Your task to perform on an android device: star an email in the gmail app Image 0: 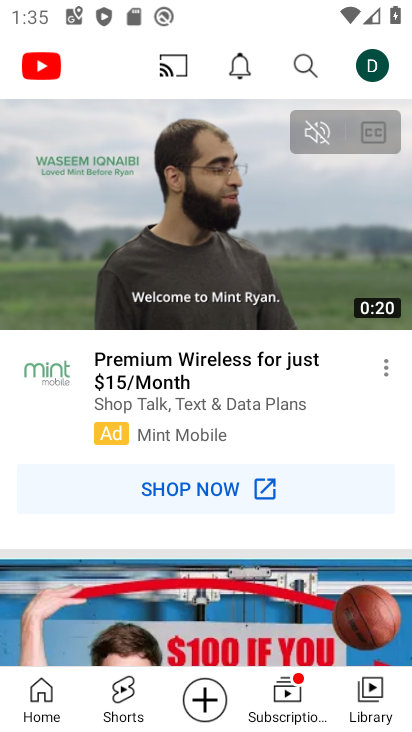
Step 0: press home button
Your task to perform on an android device: star an email in the gmail app Image 1: 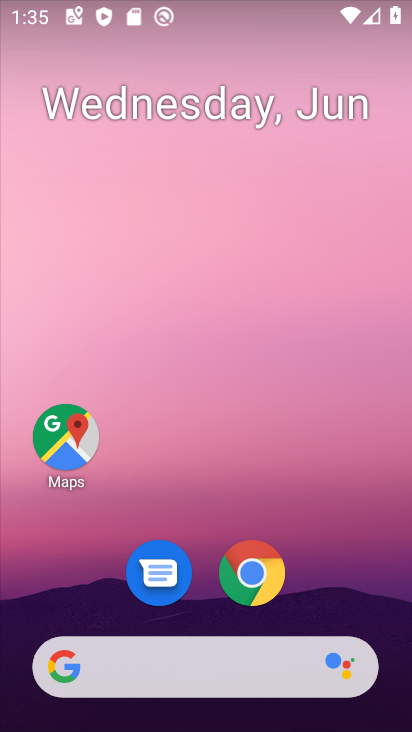
Step 1: drag from (317, 443) to (337, 103)
Your task to perform on an android device: star an email in the gmail app Image 2: 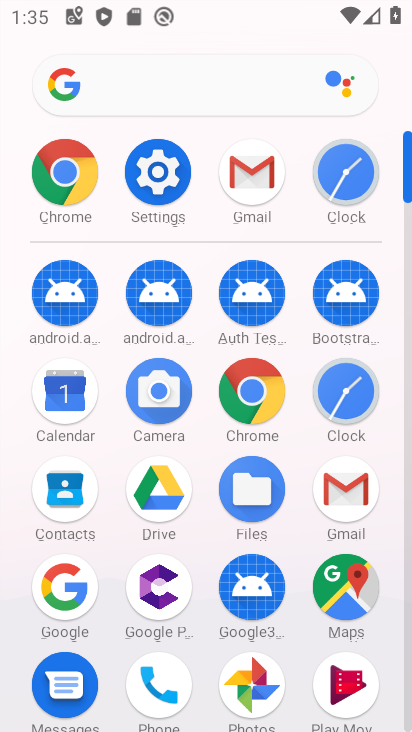
Step 2: click (331, 487)
Your task to perform on an android device: star an email in the gmail app Image 3: 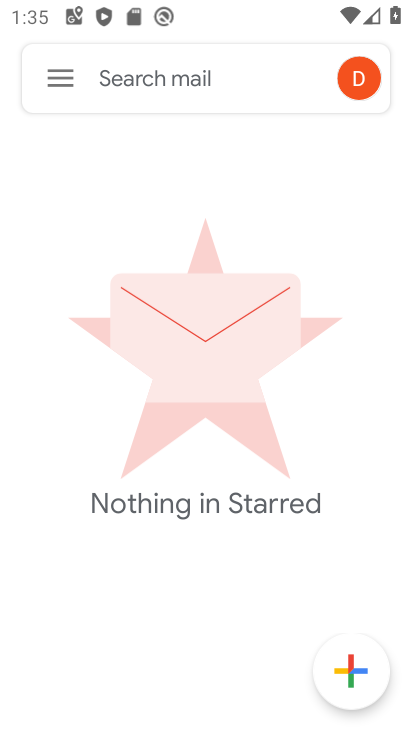
Step 3: click (63, 80)
Your task to perform on an android device: star an email in the gmail app Image 4: 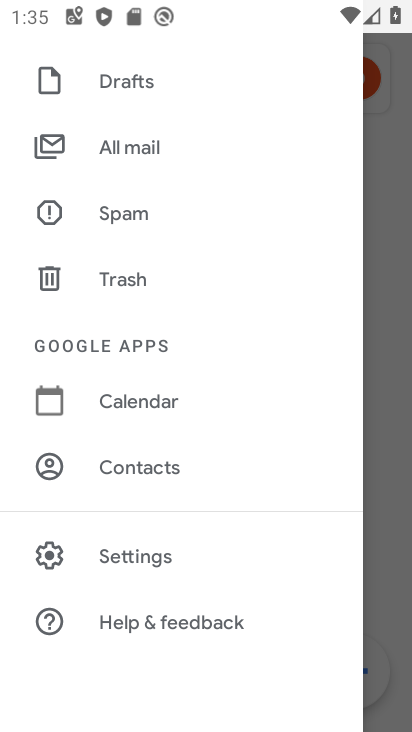
Step 4: drag from (151, 217) to (186, 446)
Your task to perform on an android device: star an email in the gmail app Image 5: 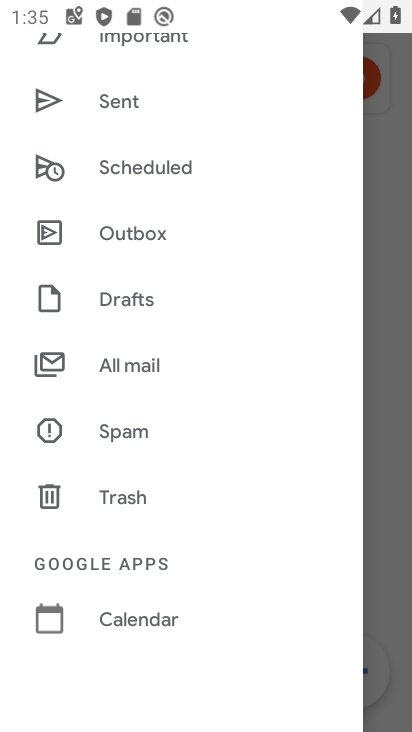
Step 5: drag from (154, 215) to (161, 403)
Your task to perform on an android device: star an email in the gmail app Image 6: 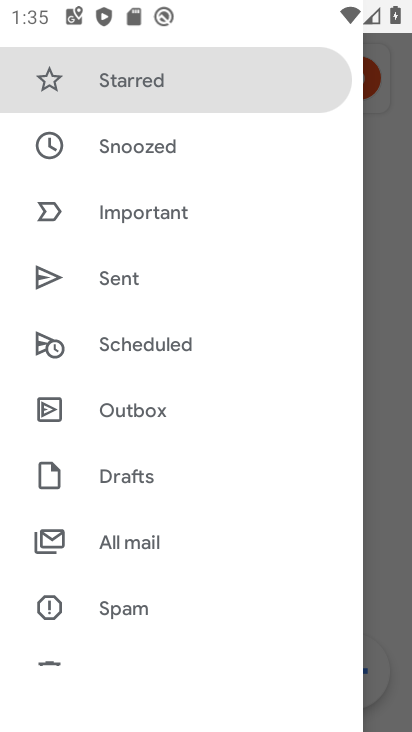
Step 6: click (191, 84)
Your task to perform on an android device: star an email in the gmail app Image 7: 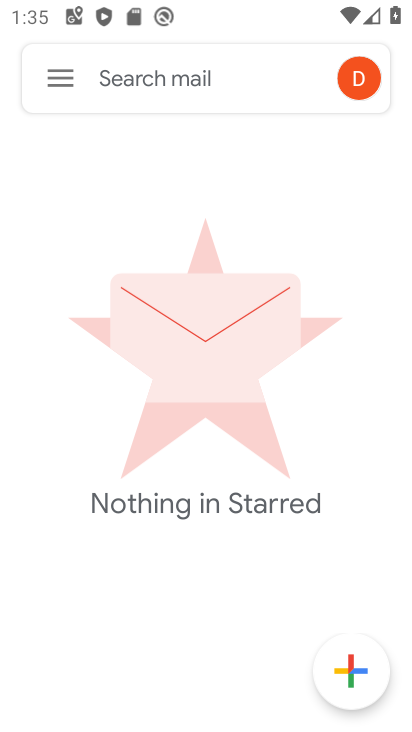
Step 7: task complete